Your task to perform on an android device: turn on notifications settings in the gmail app Image 0: 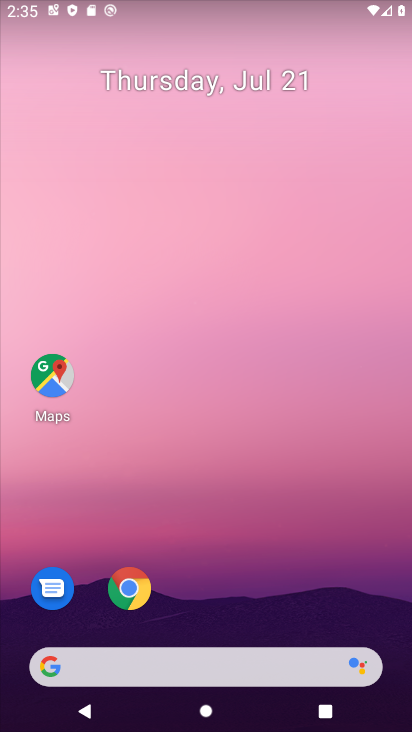
Step 0: drag from (241, 684) to (288, 259)
Your task to perform on an android device: turn on notifications settings in the gmail app Image 1: 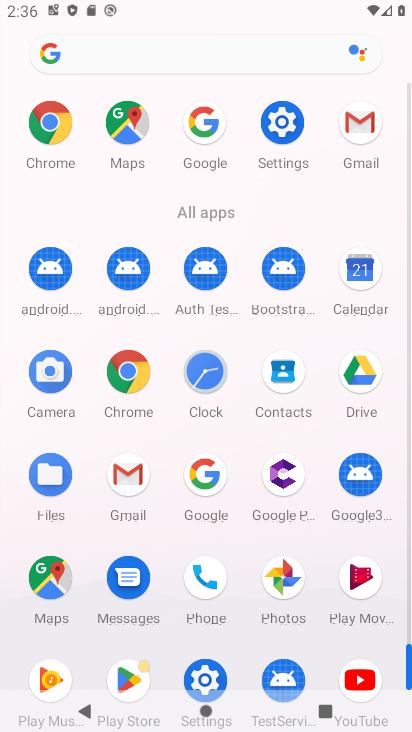
Step 1: click (125, 478)
Your task to perform on an android device: turn on notifications settings in the gmail app Image 2: 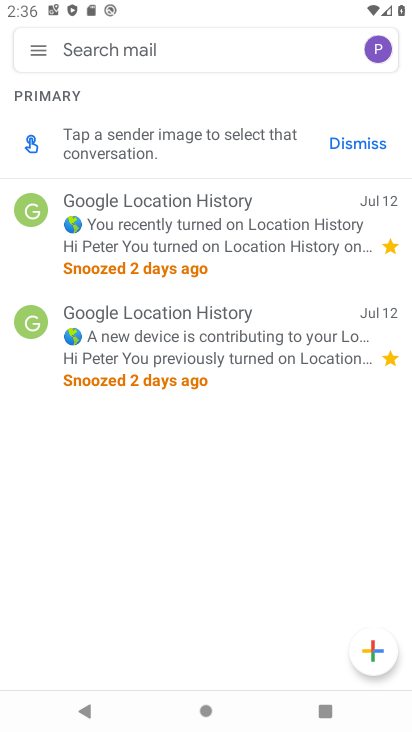
Step 2: click (40, 48)
Your task to perform on an android device: turn on notifications settings in the gmail app Image 3: 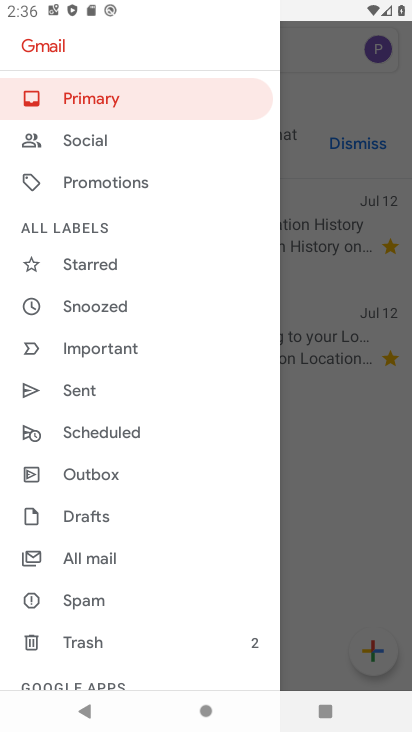
Step 3: drag from (73, 465) to (155, 205)
Your task to perform on an android device: turn on notifications settings in the gmail app Image 4: 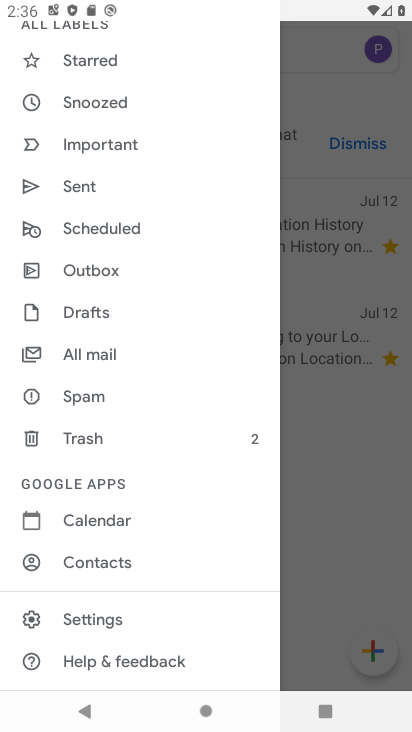
Step 4: click (78, 623)
Your task to perform on an android device: turn on notifications settings in the gmail app Image 5: 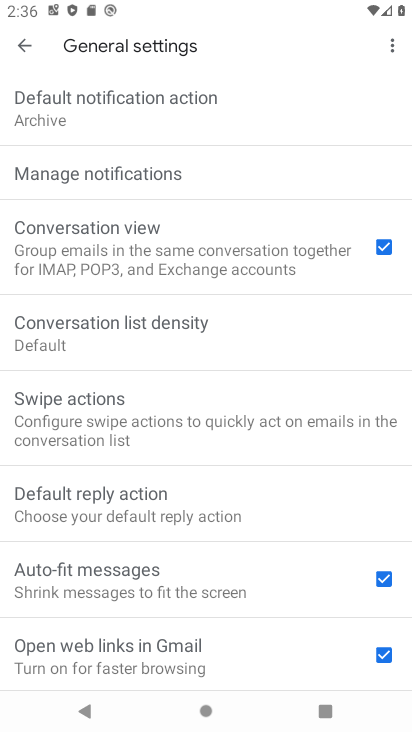
Step 5: click (162, 179)
Your task to perform on an android device: turn on notifications settings in the gmail app Image 6: 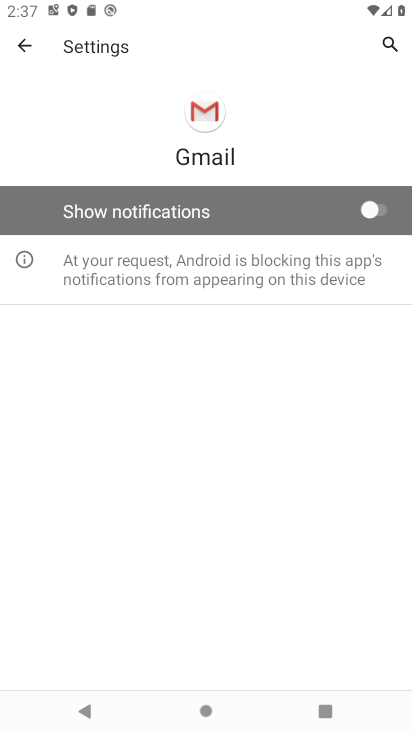
Step 6: click (264, 224)
Your task to perform on an android device: turn on notifications settings in the gmail app Image 7: 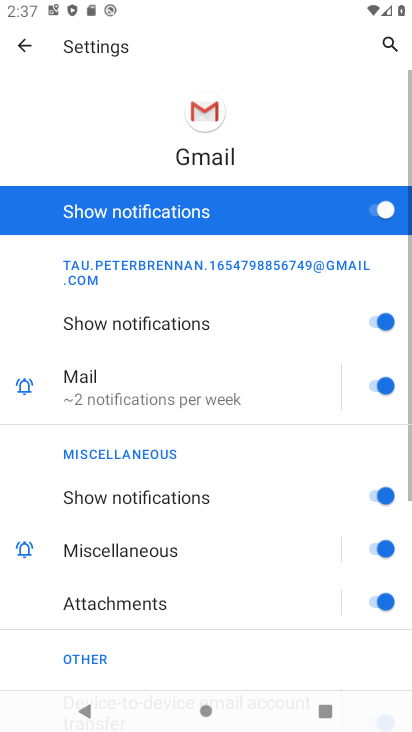
Step 7: task complete